Your task to perform on an android device: show emergency info Image 0: 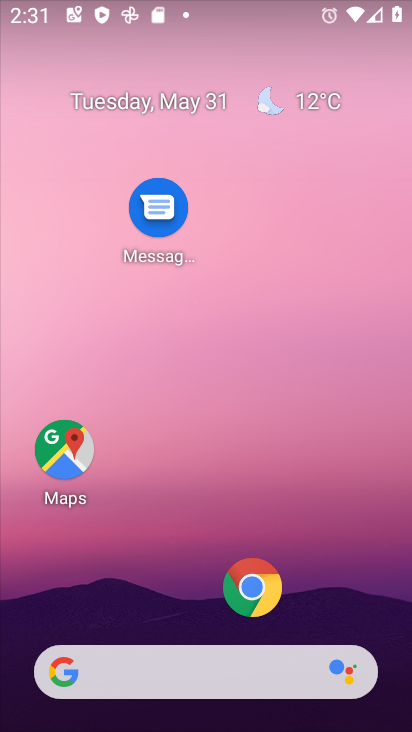
Step 0: drag from (149, 616) to (152, 118)
Your task to perform on an android device: show emergency info Image 1: 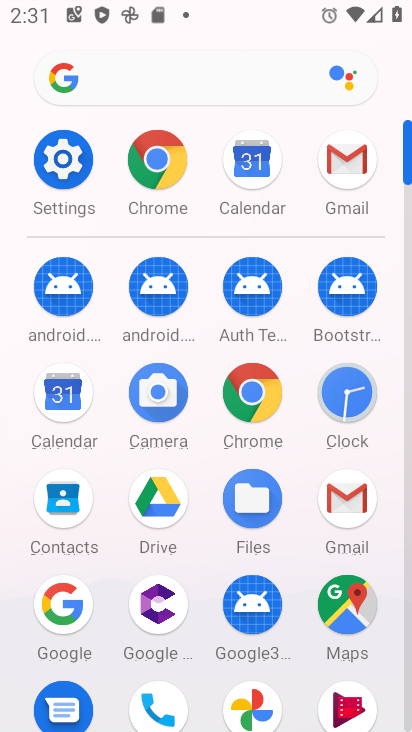
Step 1: click (66, 137)
Your task to perform on an android device: show emergency info Image 2: 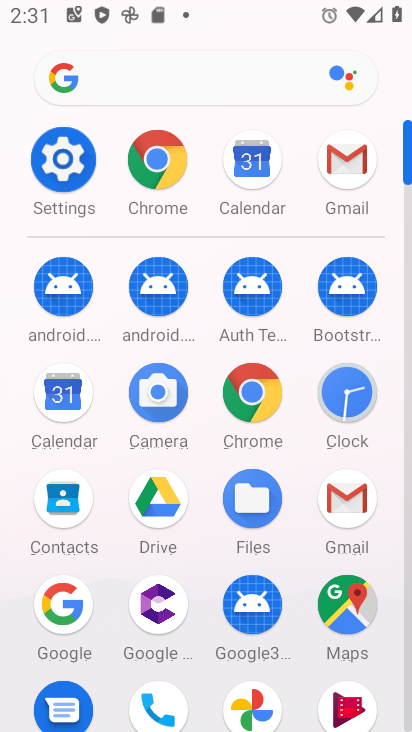
Step 2: click (66, 137)
Your task to perform on an android device: show emergency info Image 3: 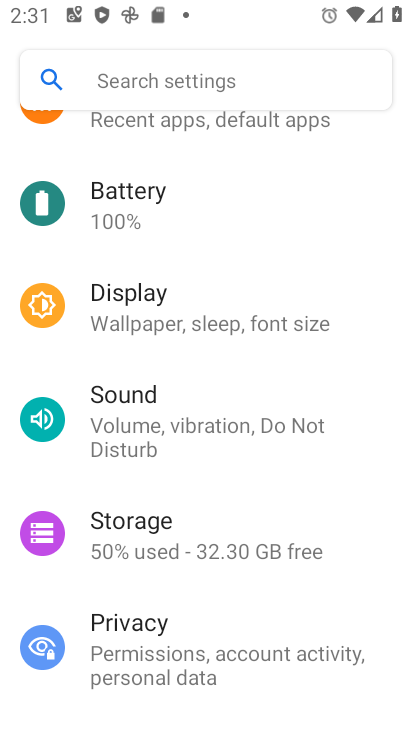
Step 3: drag from (261, 523) to (221, 82)
Your task to perform on an android device: show emergency info Image 4: 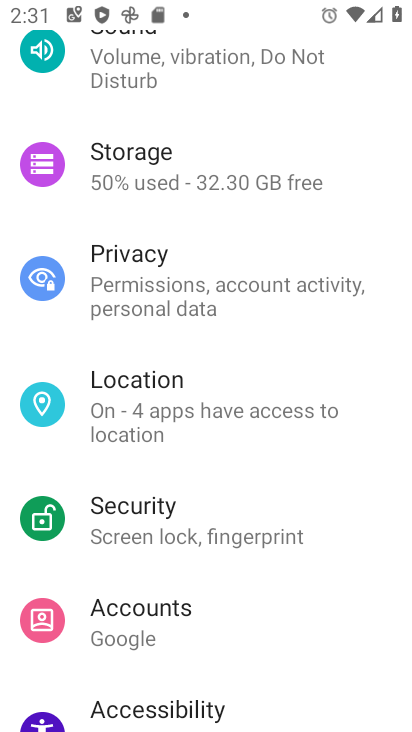
Step 4: drag from (236, 707) to (263, 140)
Your task to perform on an android device: show emergency info Image 5: 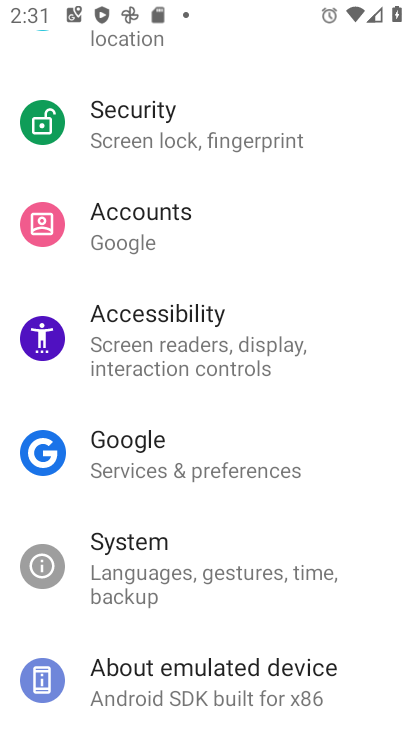
Step 5: drag from (196, 632) to (187, 378)
Your task to perform on an android device: show emergency info Image 6: 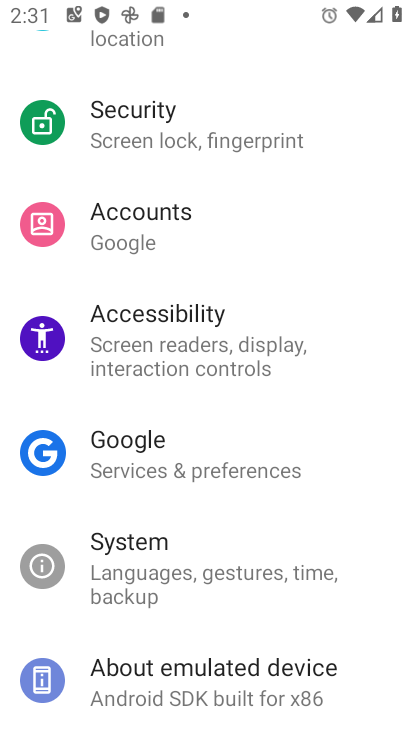
Step 6: click (236, 699)
Your task to perform on an android device: show emergency info Image 7: 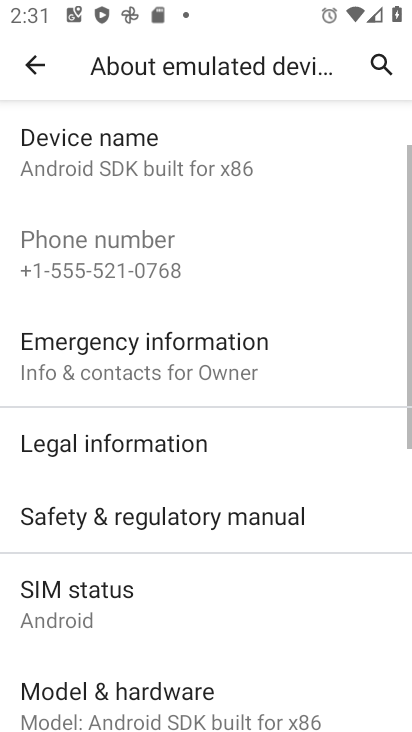
Step 7: click (156, 369)
Your task to perform on an android device: show emergency info Image 8: 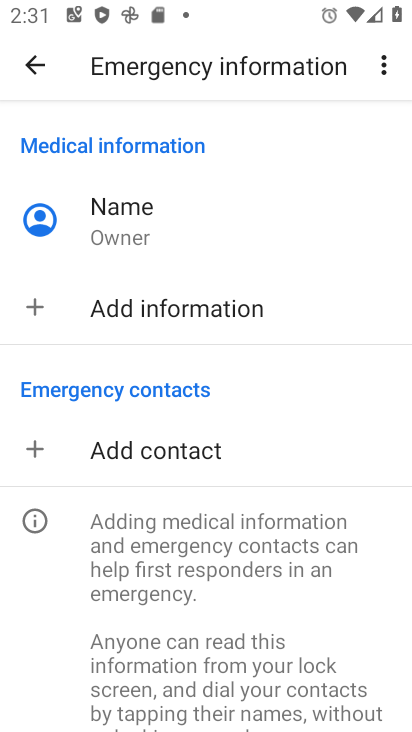
Step 8: task complete